Your task to perform on an android device: turn off location history Image 0: 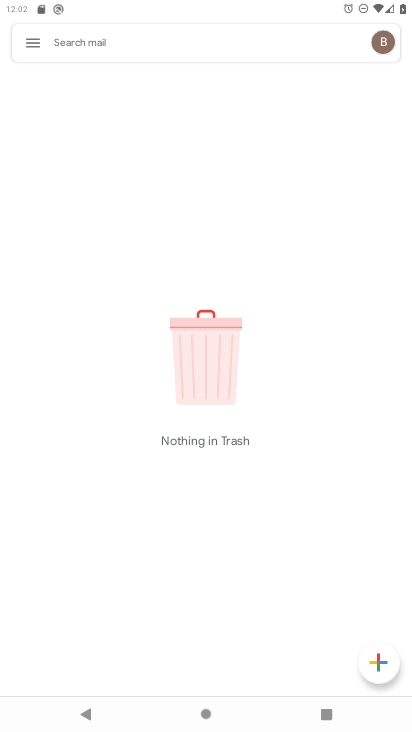
Step 0: press home button
Your task to perform on an android device: turn off location history Image 1: 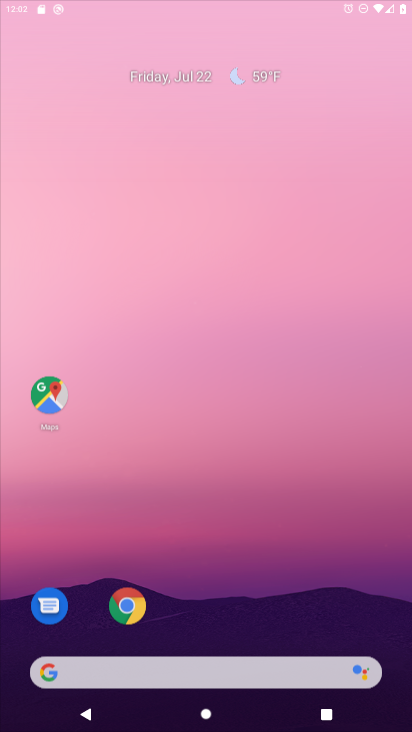
Step 1: drag from (361, 711) to (240, 0)
Your task to perform on an android device: turn off location history Image 2: 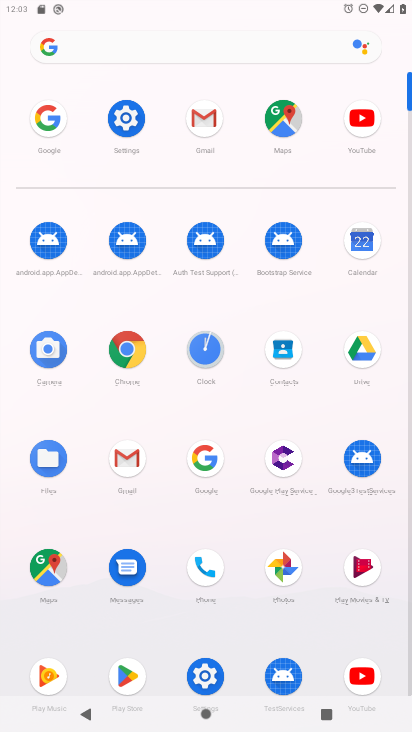
Step 2: click (203, 665)
Your task to perform on an android device: turn off location history Image 3: 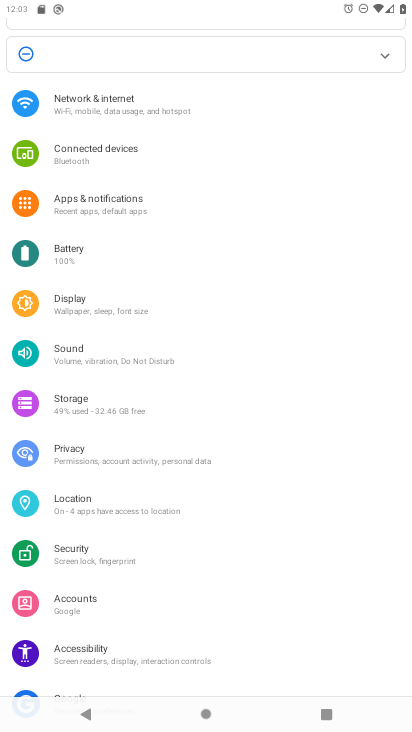
Step 3: click (103, 517)
Your task to perform on an android device: turn off location history Image 4: 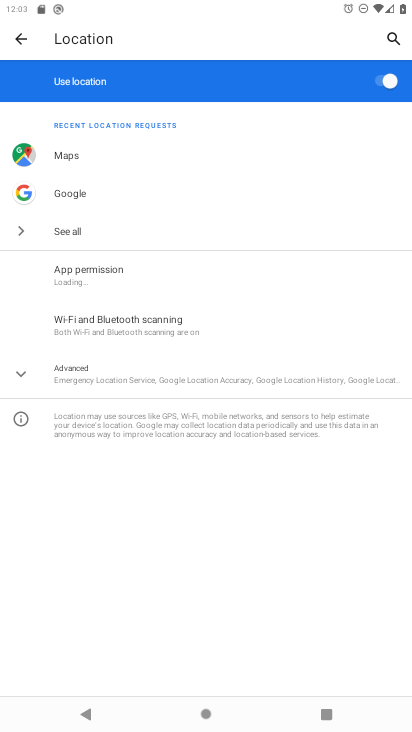
Step 4: click (28, 375)
Your task to perform on an android device: turn off location history Image 5: 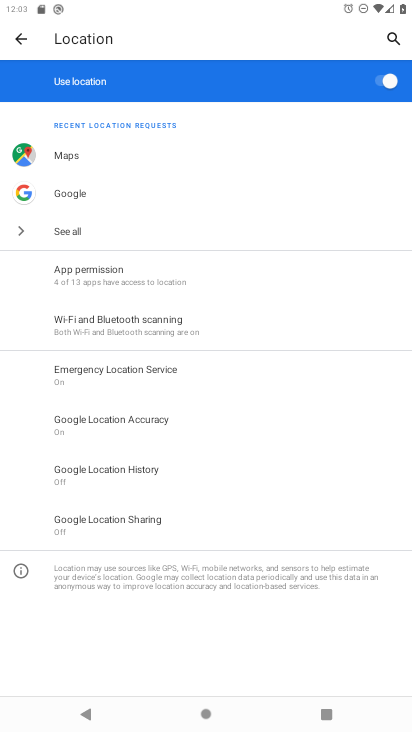
Step 5: click (132, 468)
Your task to perform on an android device: turn off location history Image 6: 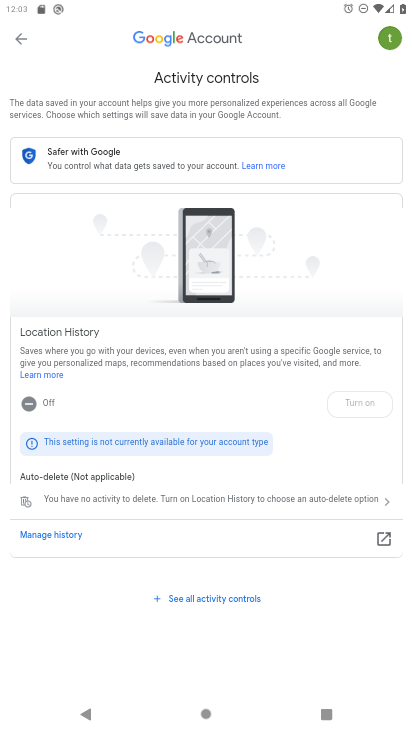
Step 6: task complete